Your task to perform on an android device: Open display settings Image 0: 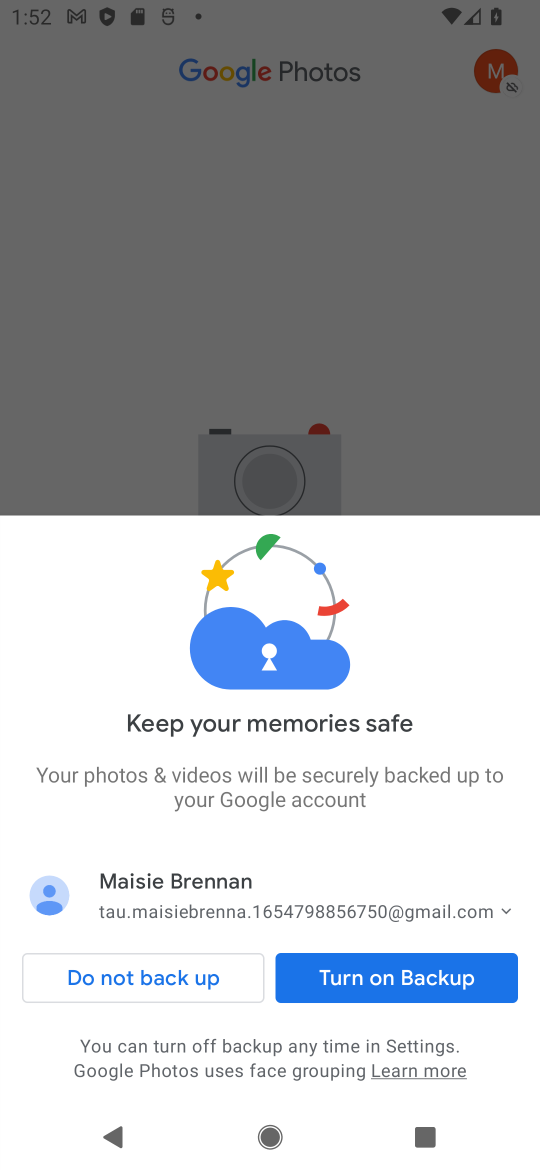
Step 0: press home button
Your task to perform on an android device: Open display settings Image 1: 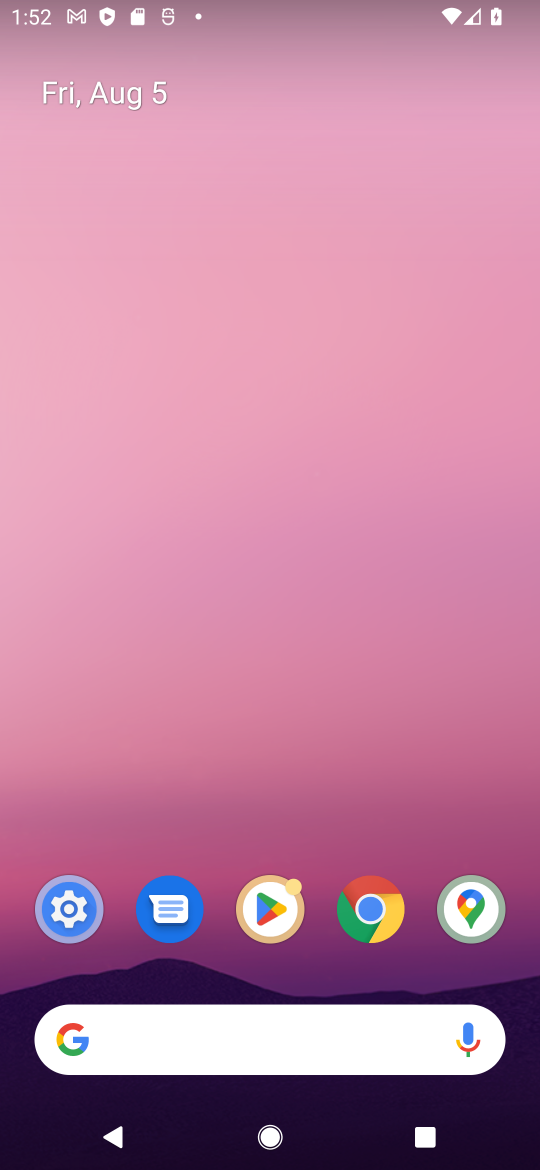
Step 1: click (58, 919)
Your task to perform on an android device: Open display settings Image 2: 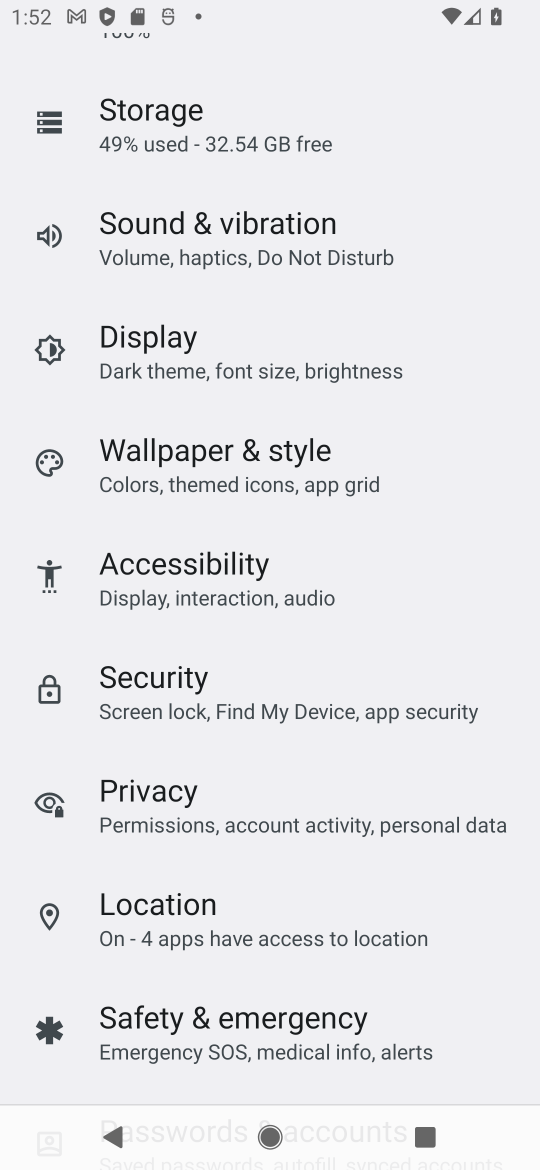
Step 2: click (198, 322)
Your task to perform on an android device: Open display settings Image 3: 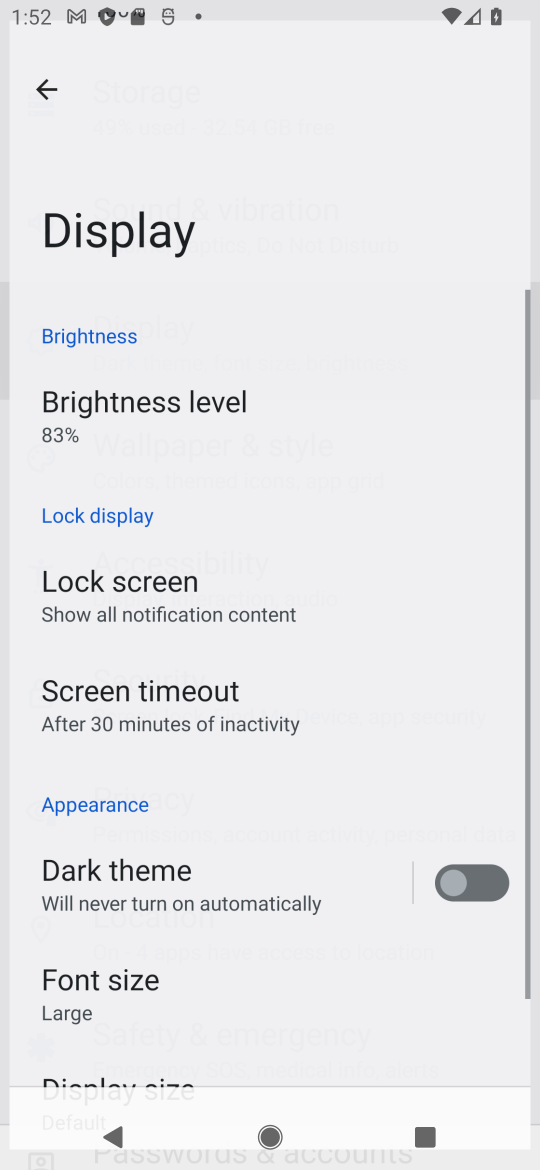
Step 3: task complete